Your task to perform on an android device: turn notification dots off Image 0: 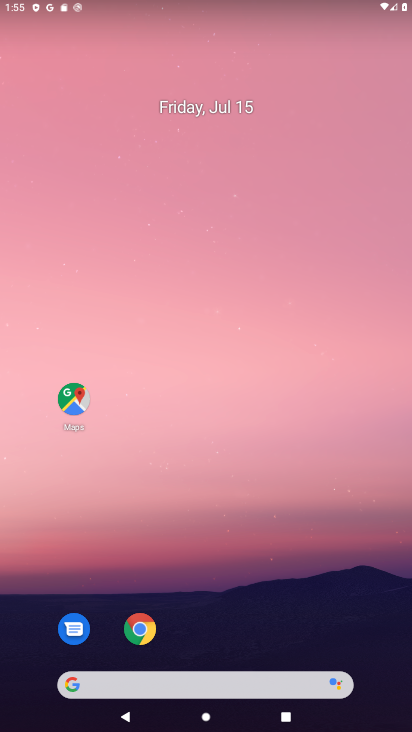
Step 0: drag from (191, 563) to (257, 22)
Your task to perform on an android device: turn notification dots off Image 1: 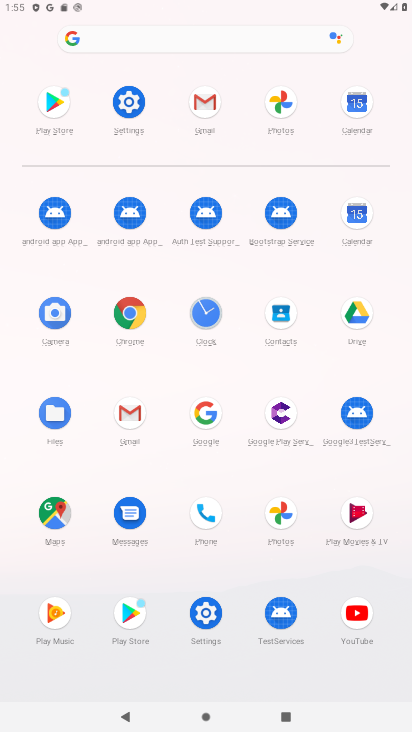
Step 1: click (124, 102)
Your task to perform on an android device: turn notification dots off Image 2: 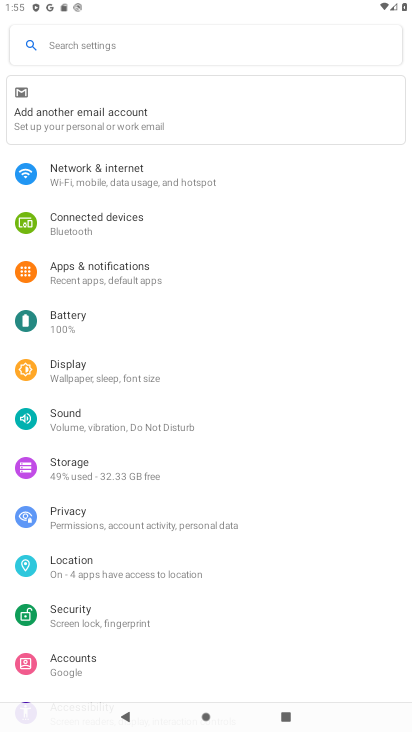
Step 2: click (103, 288)
Your task to perform on an android device: turn notification dots off Image 3: 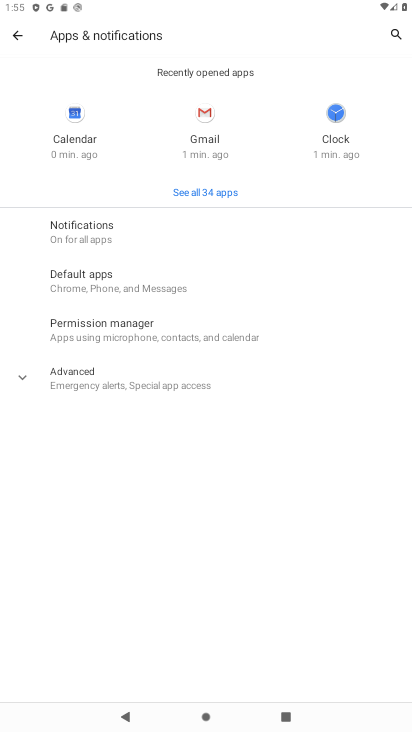
Step 3: click (93, 237)
Your task to perform on an android device: turn notification dots off Image 4: 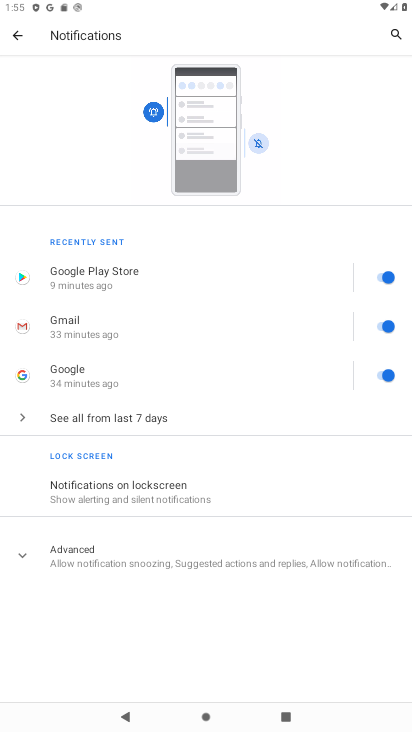
Step 4: click (69, 554)
Your task to perform on an android device: turn notification dots off Image 5: 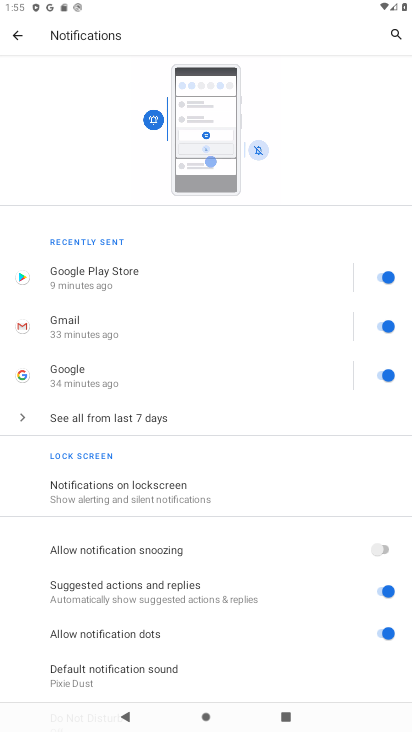
Step 5: drag from (205, 657) to (227, 577)
Your task to perform on an android device: turn notification dots off Image 6: 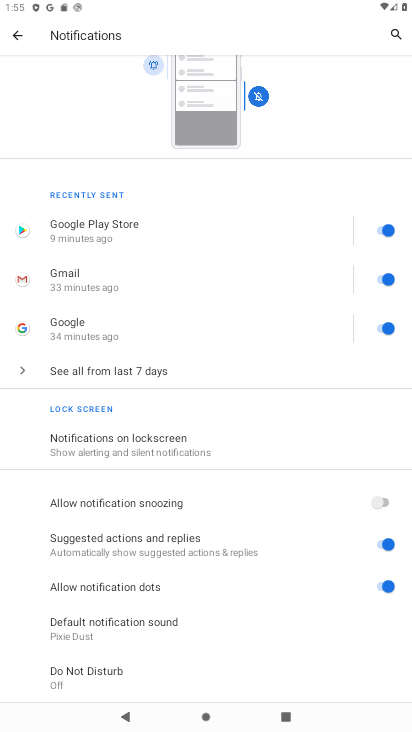
Step 6: click (376, 586)
Your task to perform on an android device: turn notification dots off Image 7: 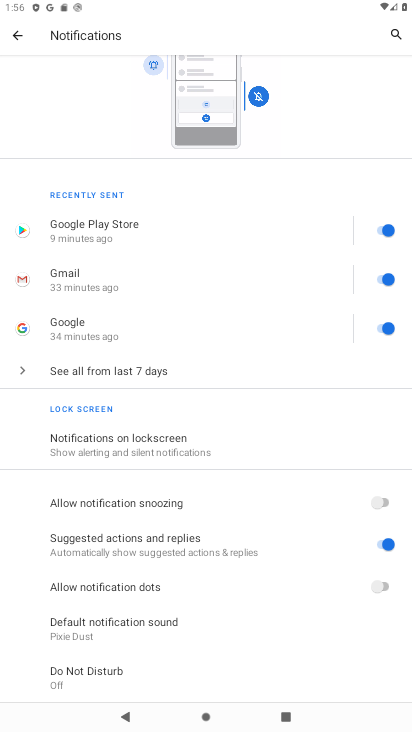
Step 7: task complete